Your task to perform on an android device: Open settings Image 0: 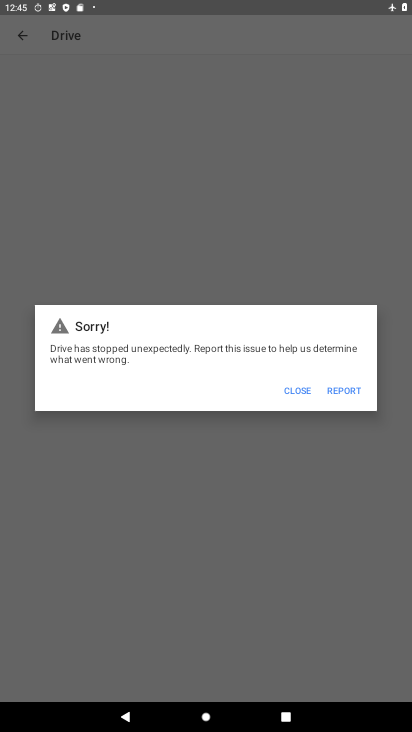
Step 0: press home button
Your task to perform on an android device: Open settings Image 1: 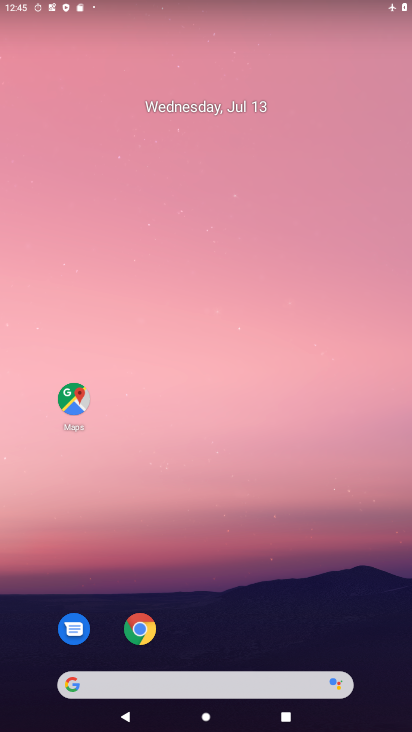
Step 1: drag from (207, 626) to (167, 174)
Your task to perform on an android device: Open settings Image 2: 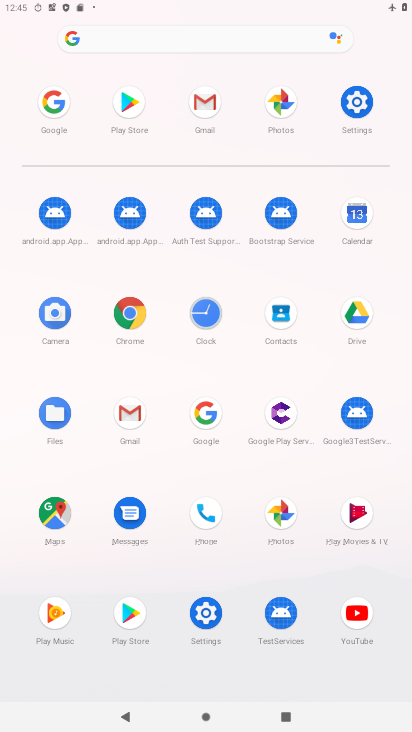
Step 2: click (352, 99)
Your task to perform on an android device: Open settings Image 3: 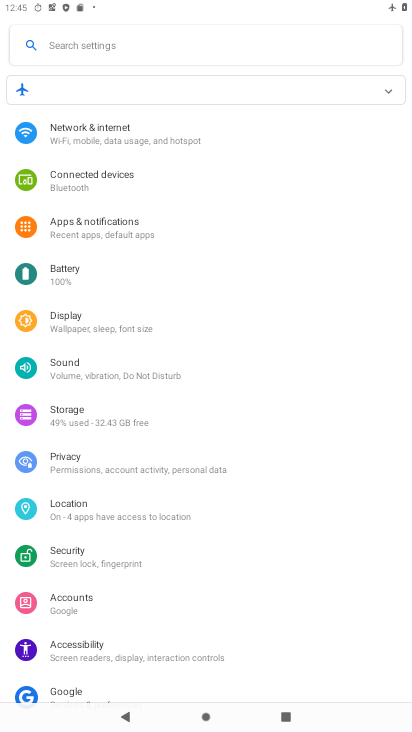
Step 3: task complete